Your task to perform on an android device: delete browsing data in the chrome app Image 0: 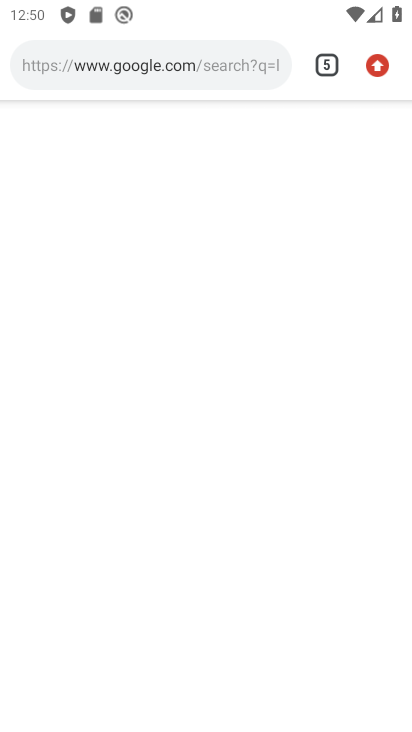
Step 0: click (370, 70)
Your task to perform on an android device: delete browsing data in the chrome app Image 1: 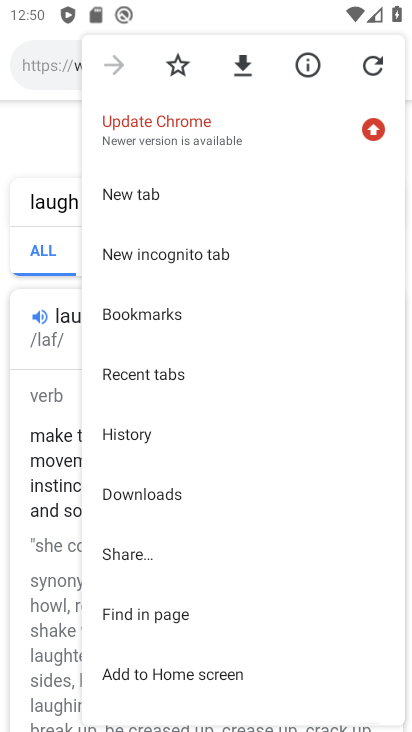
Step 1: click (137, 439)
Your task to perform on an android device: delete browsing data in the chrome app Image 2: 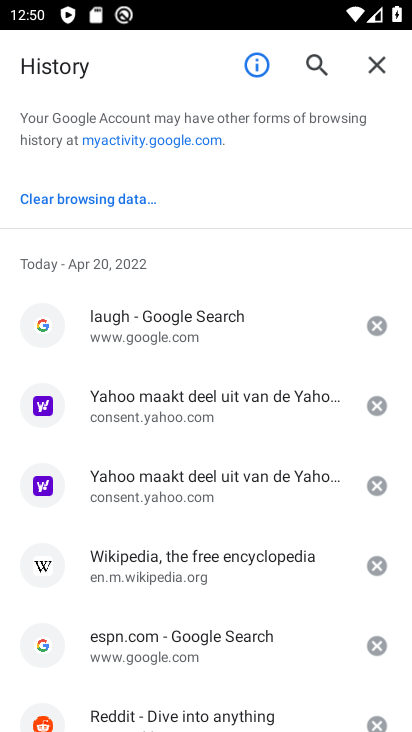
Step 2: click (113, 204)
Your task to perform on an android device: delete browsing data in the chrome app Image 3: 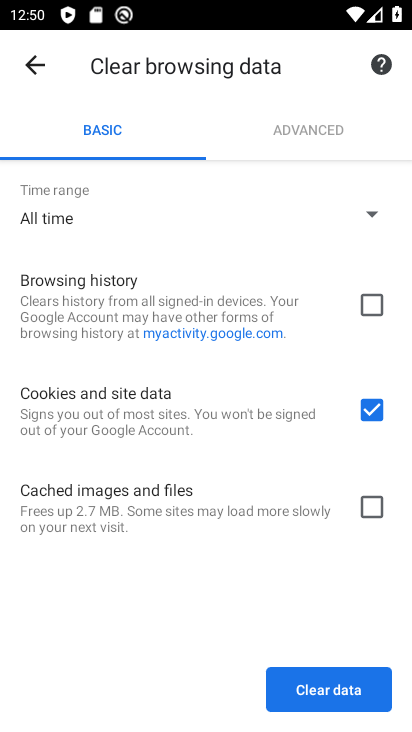
Step 3: click (376, 310)
Your task to perform on an android device: delete browsing data in the chrome app Image 4: 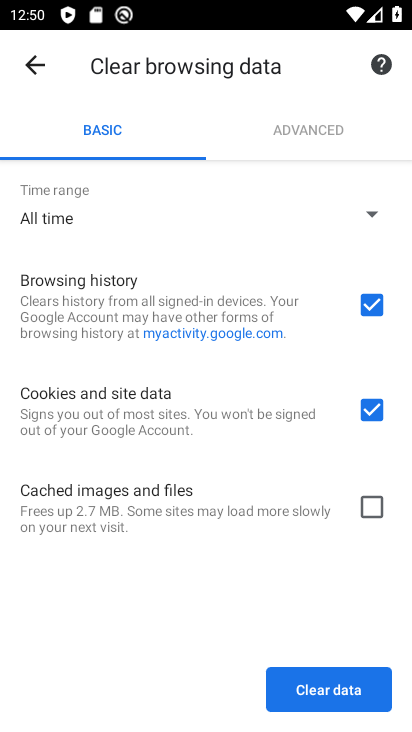
Step 4: click (370, 480)
Your task to perform on an android device: delete browsing data in the chrome app Image 5: 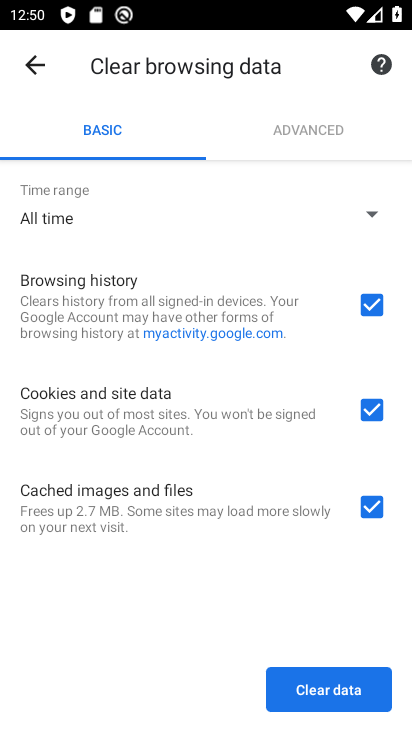
Step 5: click (337, 692)
Your task to perform on an android device: delete browsing data in the chrome app Image 6: 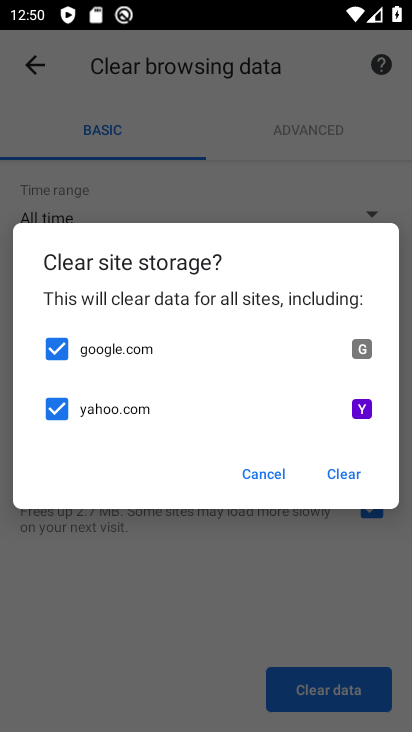
Step 6: click (339, 470)
Your task to perform on an android device: delete browsing data in the chrome app Image 7: 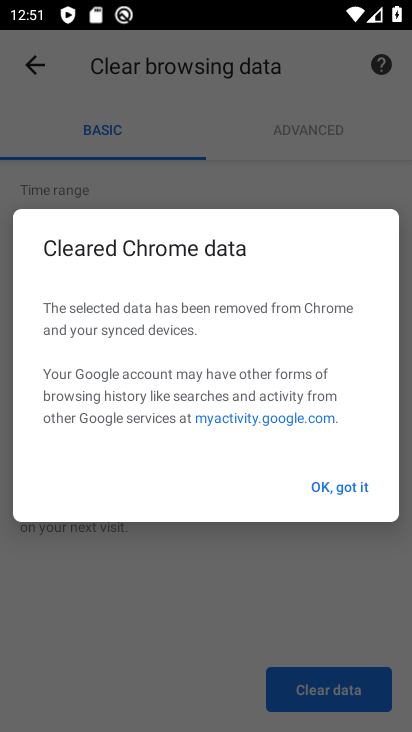
Step 7: click (334, 495)
Your task to perform on an android device: delete browsing data in the chrome app Image 8: 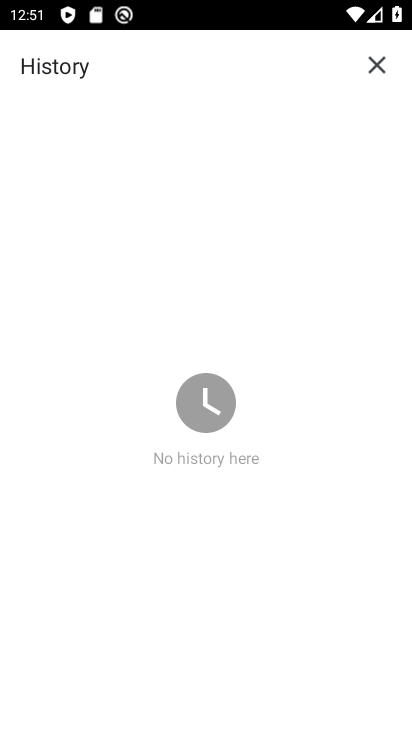
Step 8: task complete